Your task to perform on an android device: Go to eBay Image 0: 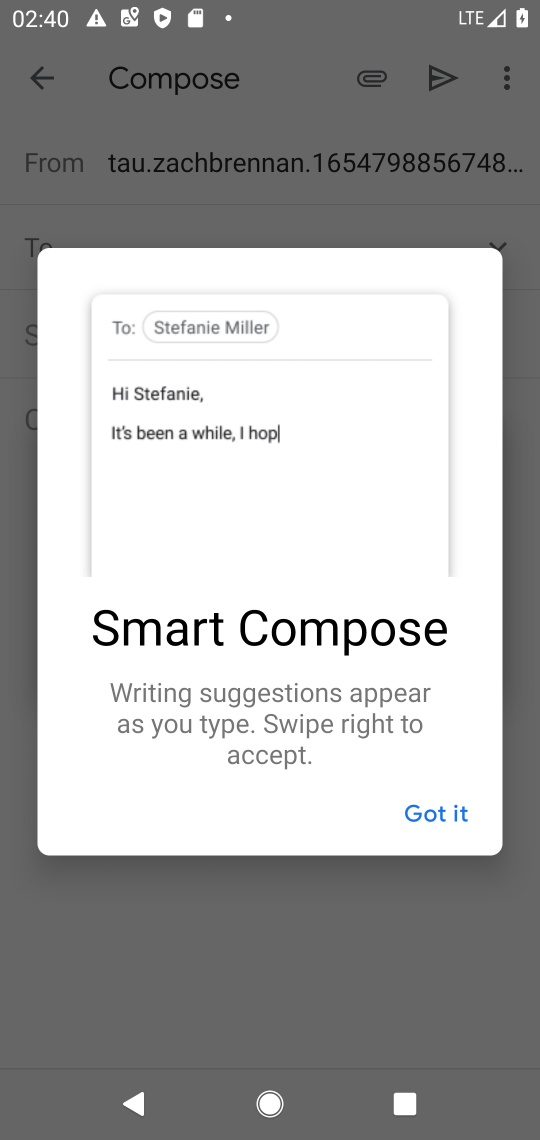
Step 0: press home button
Your task to perform on an android device: Go to eBay Image 1: 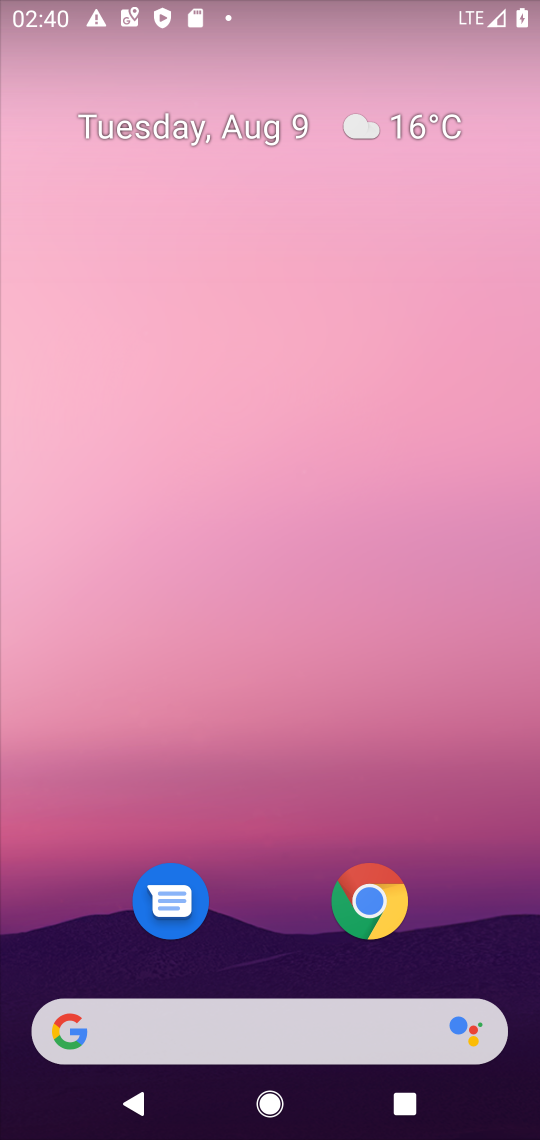
Step 1: click (372, 898)
Your task to perform on an android device: Go to eBay Image 2: 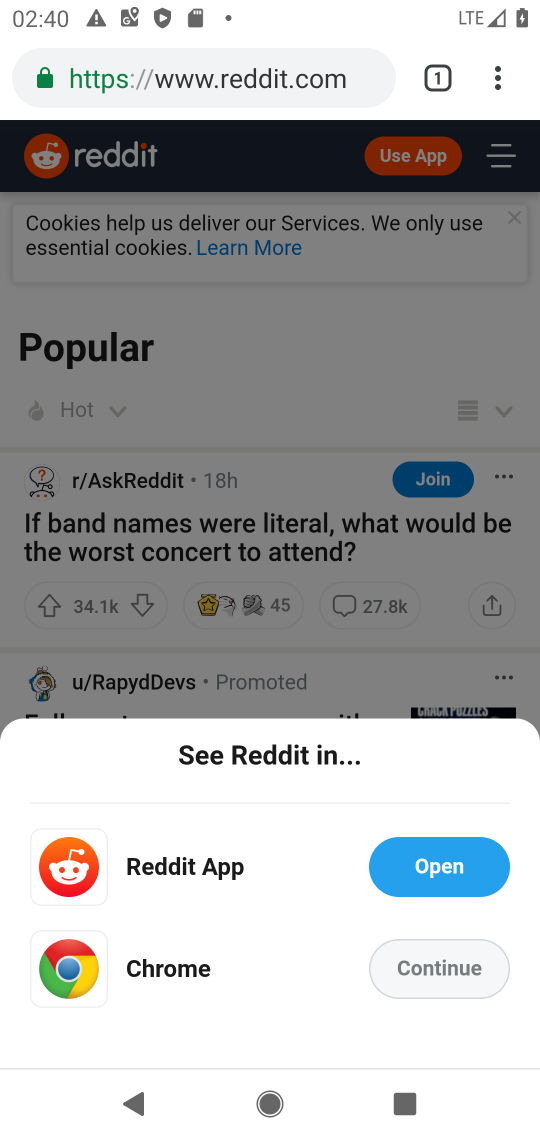
Step 2: click (376, 79)
Your task to perform on an android device: Go to eBay Image 3: 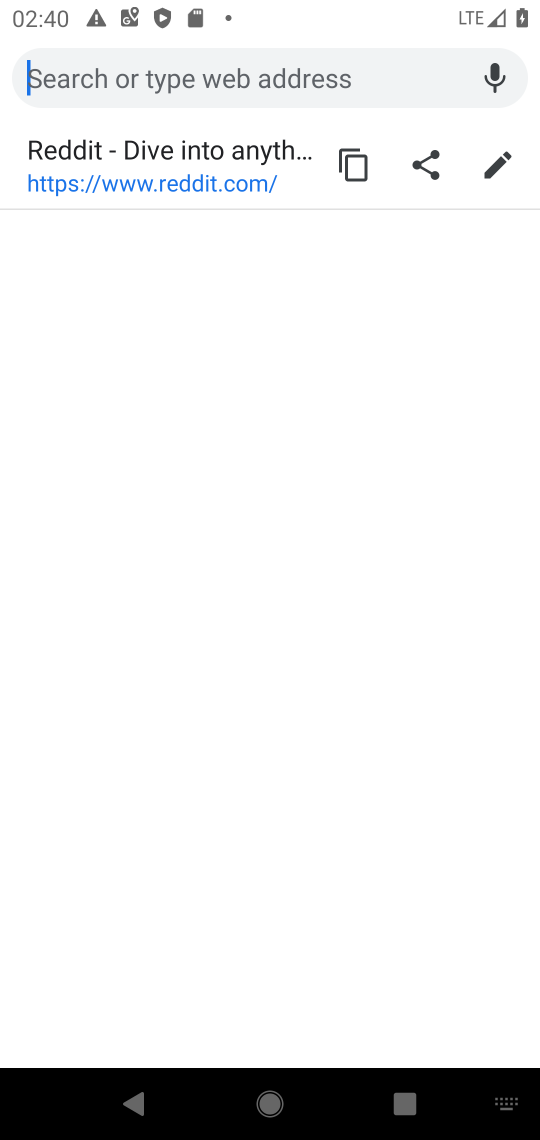
Step 3: type "eBay"
Your task to perform on an android device: Go to eBay Image 4: 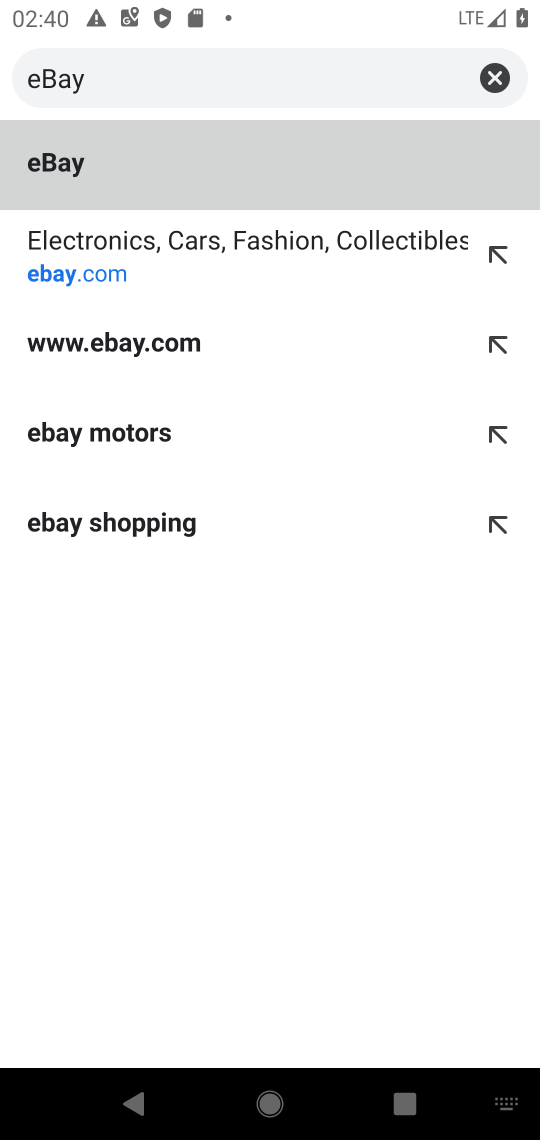
Step 4: click (95, 249)
Your task to perform on an android device: Go to eBay Image 5: 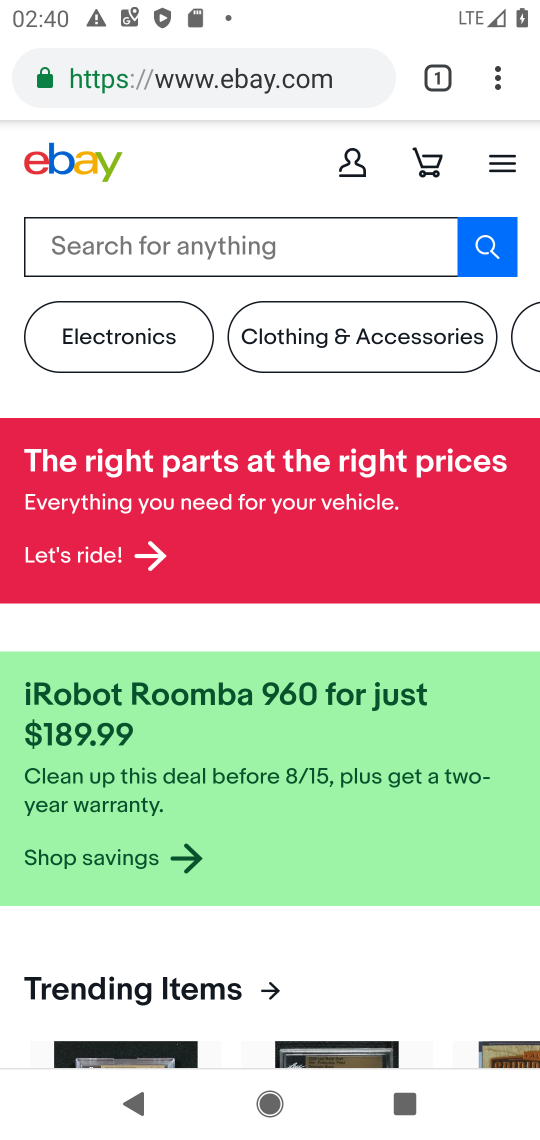
Step 5: drag from (365, 630) to (374, 143)
Your task to perform on an android device: Go to eBay Image 6: 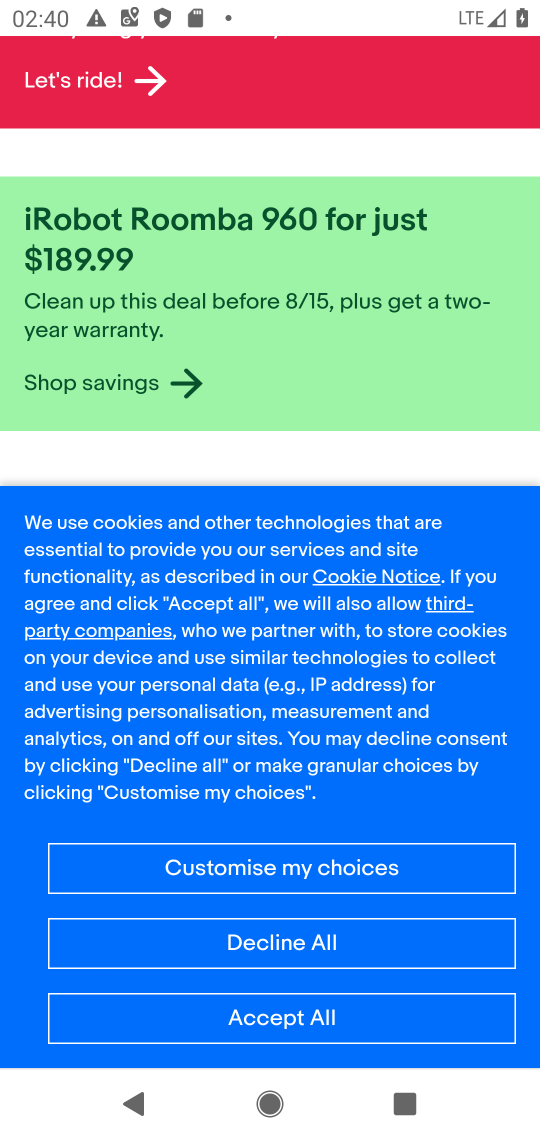
Step 6: click (277, 1015)
Your task to perform on an android device: Go to eBay Image 7: 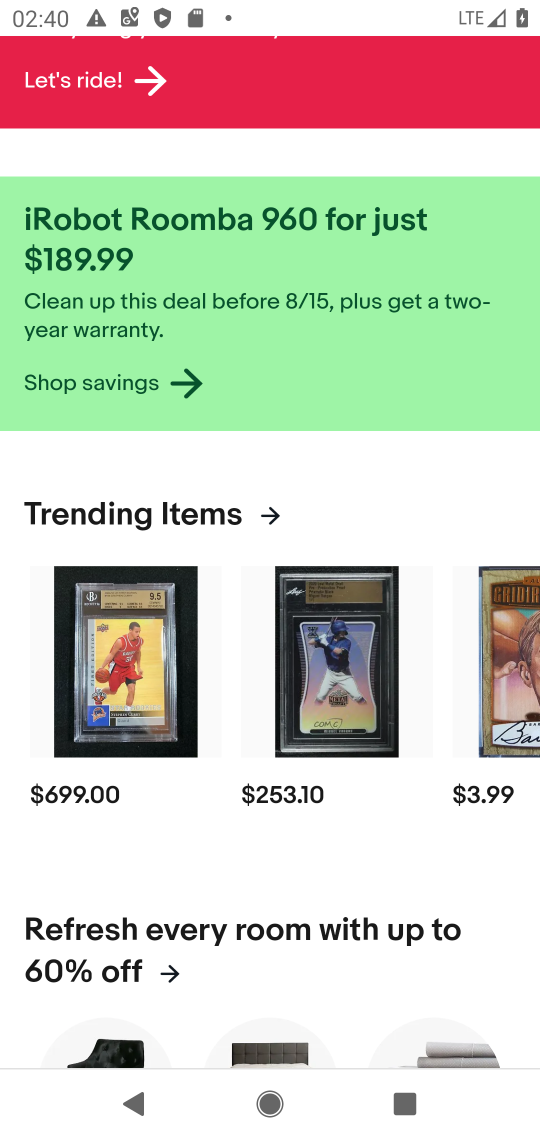
Step 7: task complete